Your task to perform on an android device: turn on bluetooth scan Image 0: 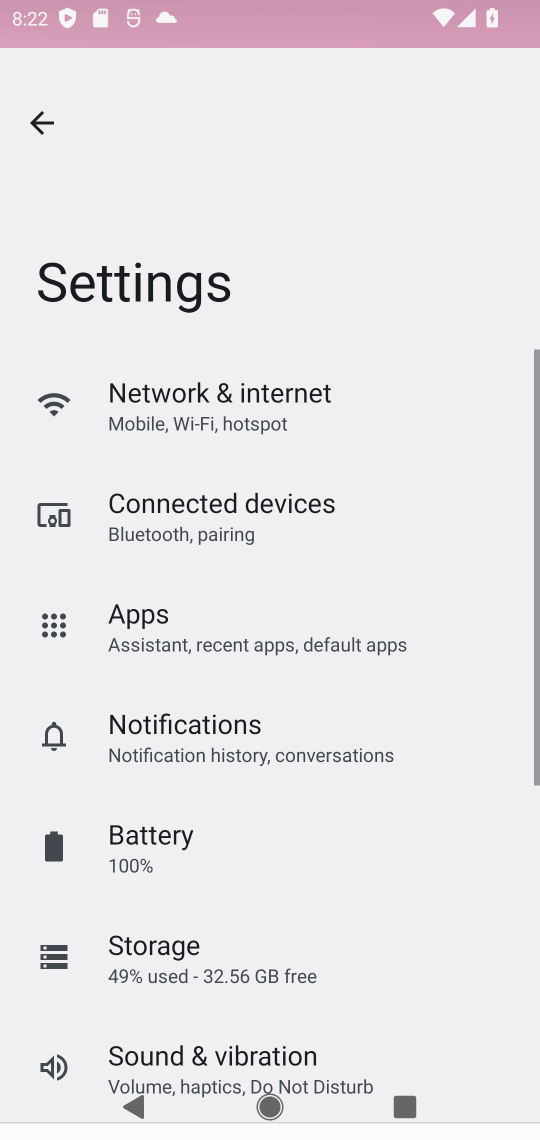
Step 0: press home button
Your task to perform on an android device: turn on bluetooth scan Image 1: 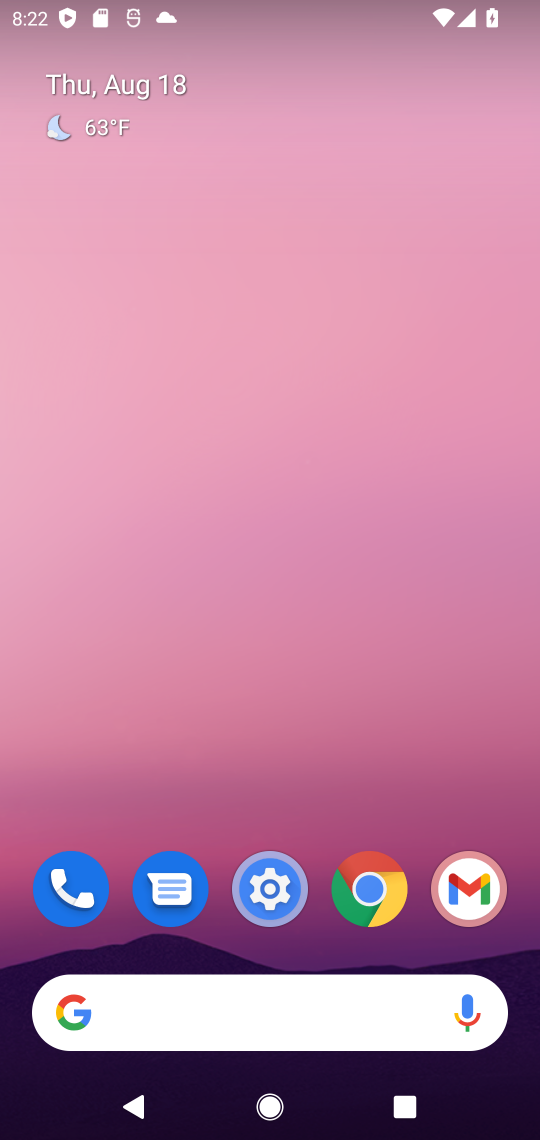
Step 1: click (261, 905)
Your task to perform on an android device: turn on bluetooth scan Image 2: 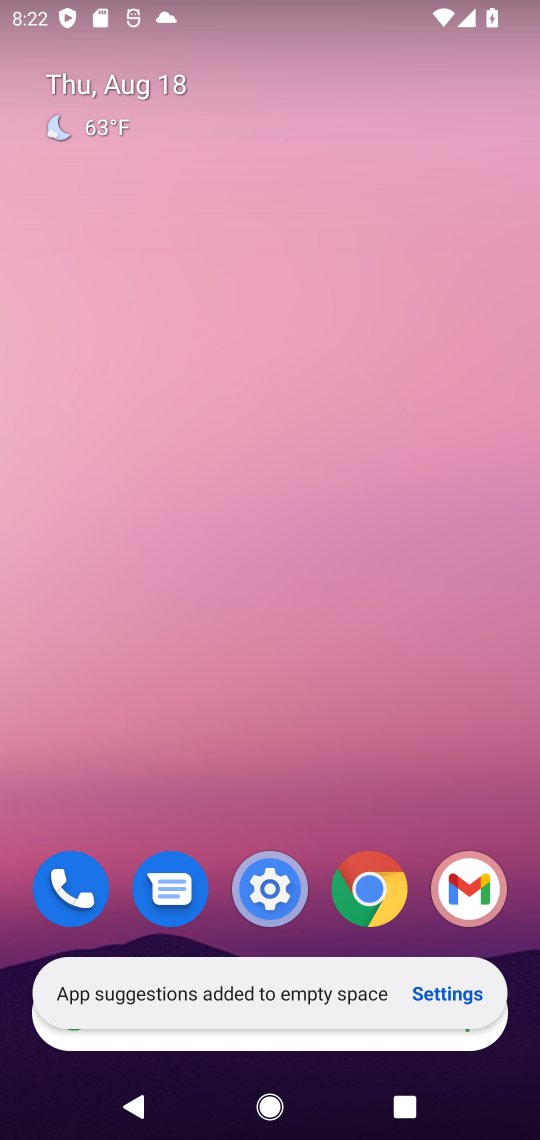
Step 2: click (263, 898)
Your task to perform on an android device: turn on bluetooth scan Image 3: 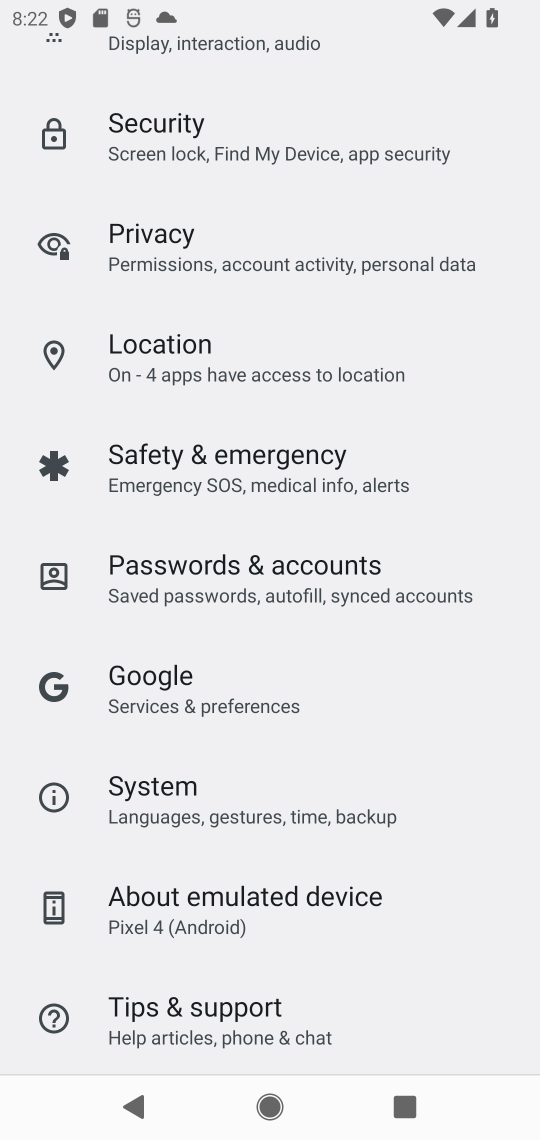
Step 3: click (145, 363)
Your task to perform on an android device: turn on bluetooth scan Image 4: 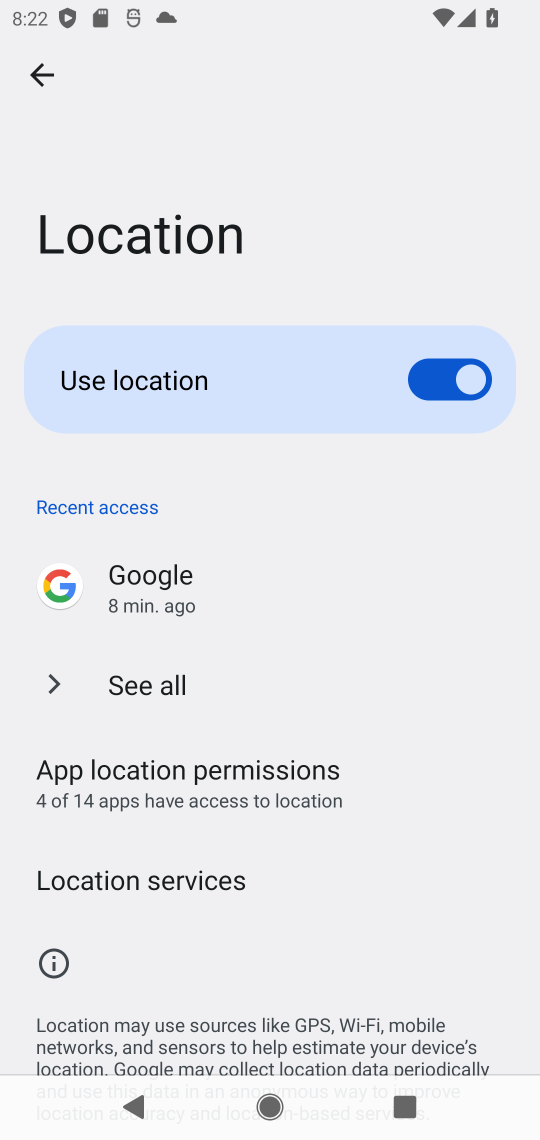
Step 4: click (165, 888)
Your task to perform on an android device: turn on bluetooth scan Image 5: 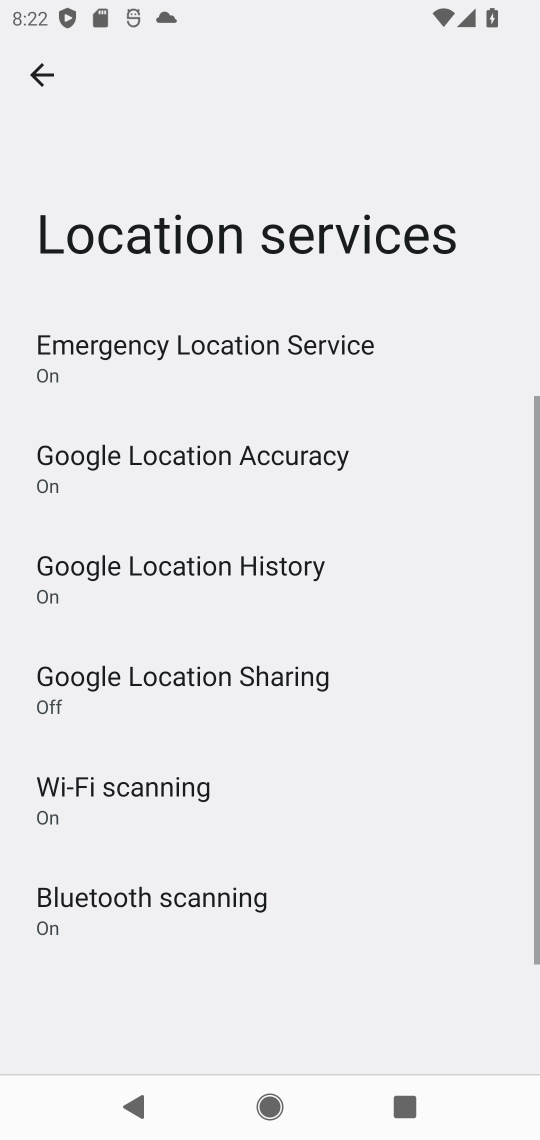
Step 5: click (164, 903)
Your task to perform on an android device: turn on bluetooth scan Image 6: 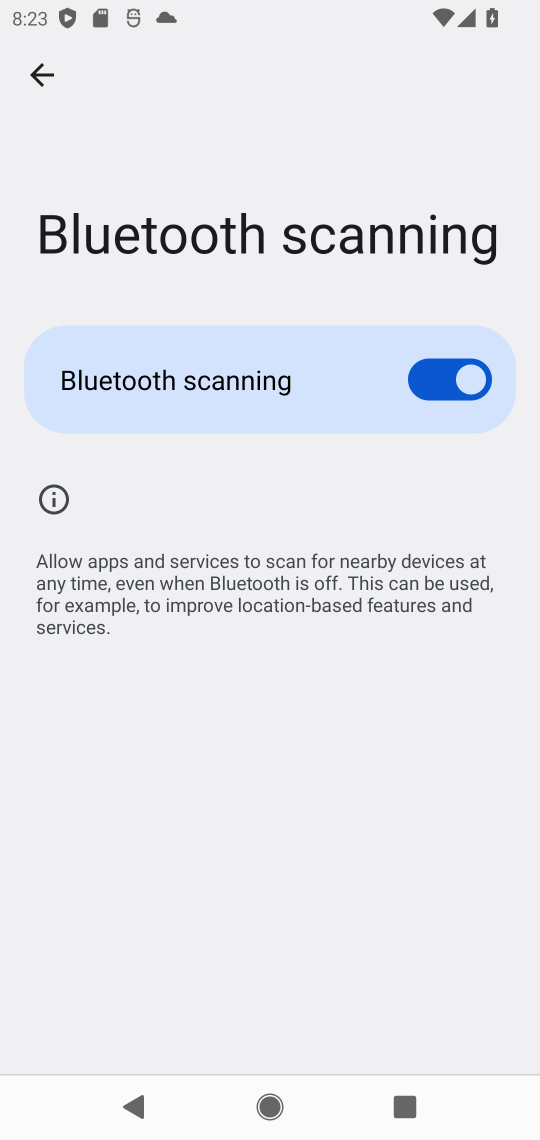
Step 6: task complete